Your task to perform on an android device: open app "LinkedIn" (install if not already installed) Image 0: 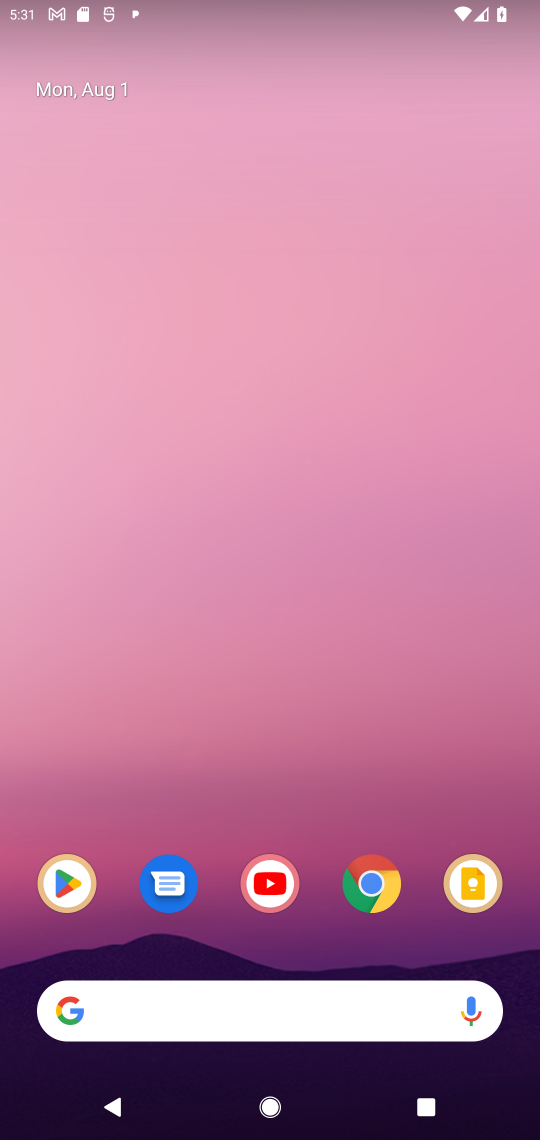
Step 0: drag from (187, 846) to (178, 172)
Your task to perform on an android device: open app "LinkedIn" (install if not already installed) Image 1: 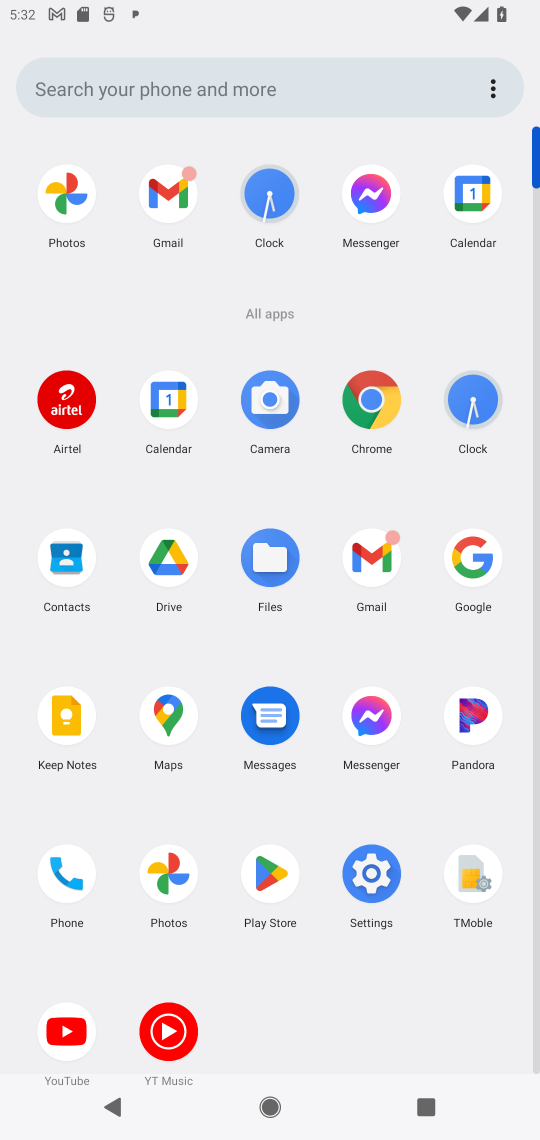
Step 1: click (256, 889)
Your task to perform on an android device: open app "LinkedIn" (install if not already installed) Image 2: 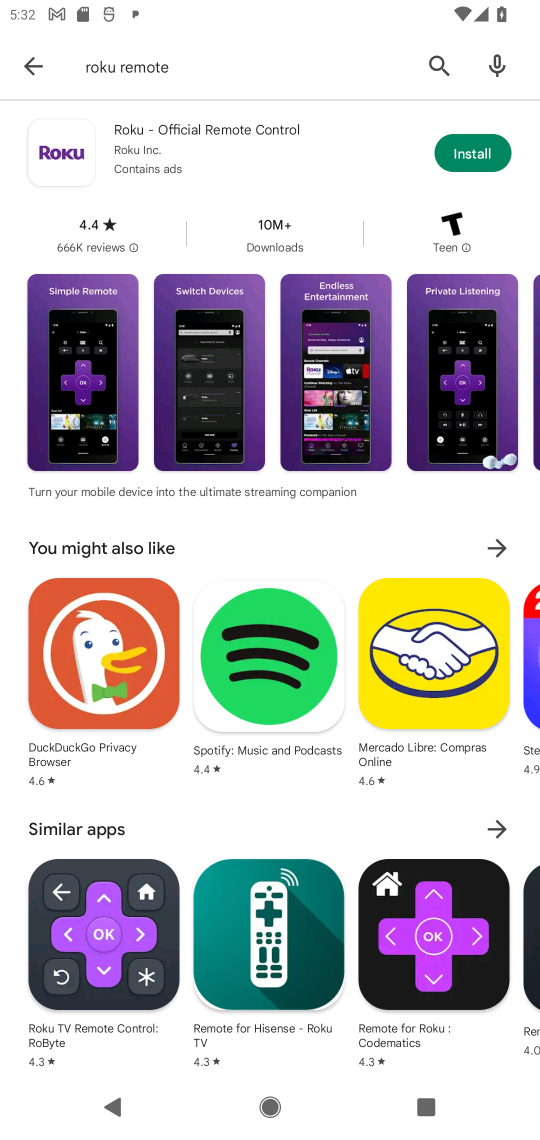
Step 2: click (28, 54)
Your task to perform on an android device: open app "LinkedIn" (install if not already installed) Image 3: 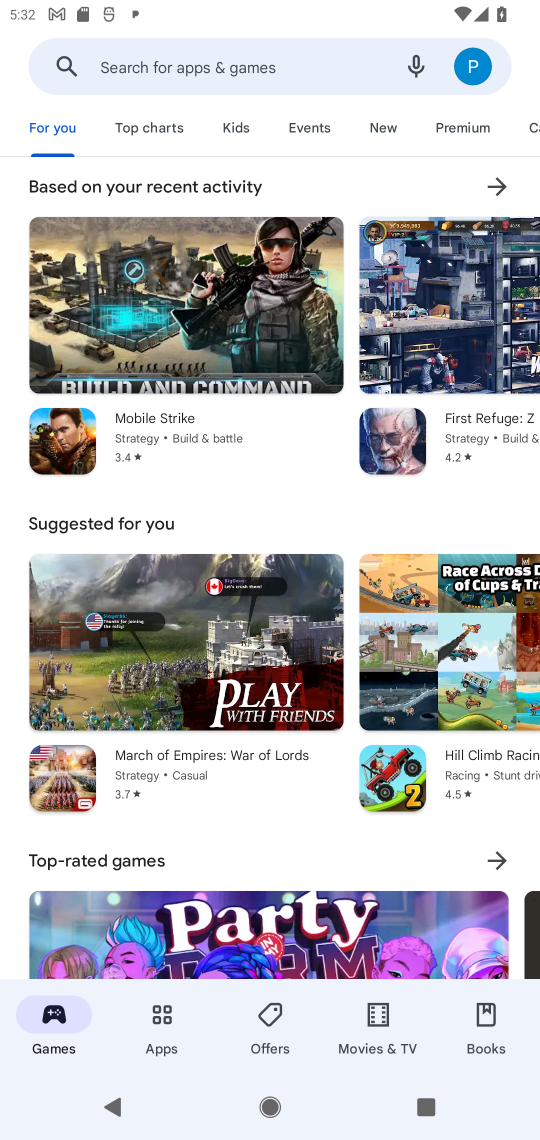
Step 3: click (258, 64)
Your task to perform on an android device: open app "LinkedIn" (install if not already installed) Image 4: 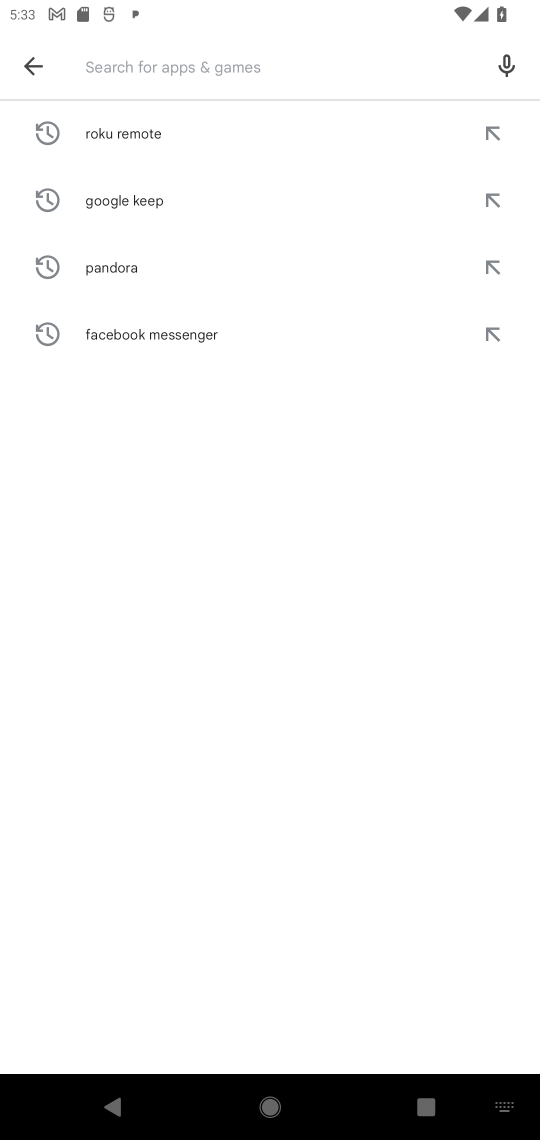
Step 4: type "LinkedIn"
Your task to perform on an android device: open app "LinkedIn" (install if not already installed) Image 5: 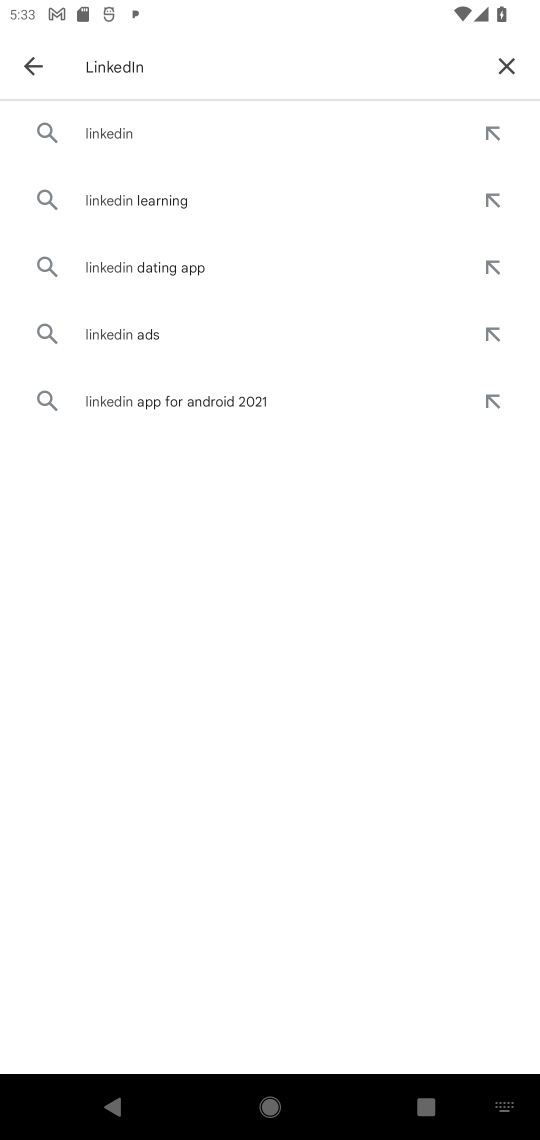
Step 5: click (120, 137)
Your task to perform on an android device: open app "LinkedIn" (install if not already installed) Image 6: 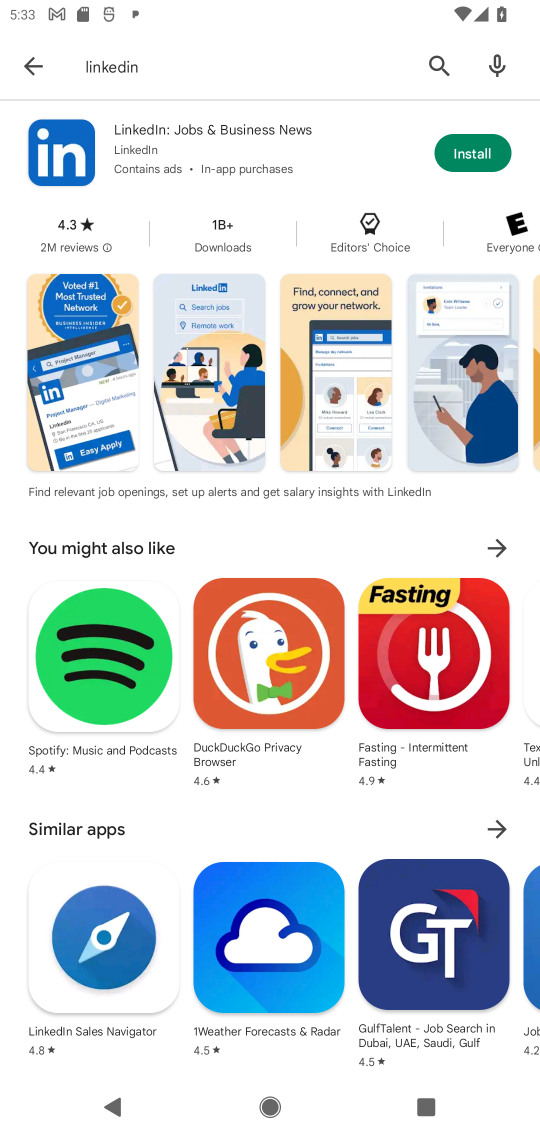
Step 6: click (477, 157)
Your task to perform on an android device: open app "LinkedIn" (install if not already installed) Image 7: 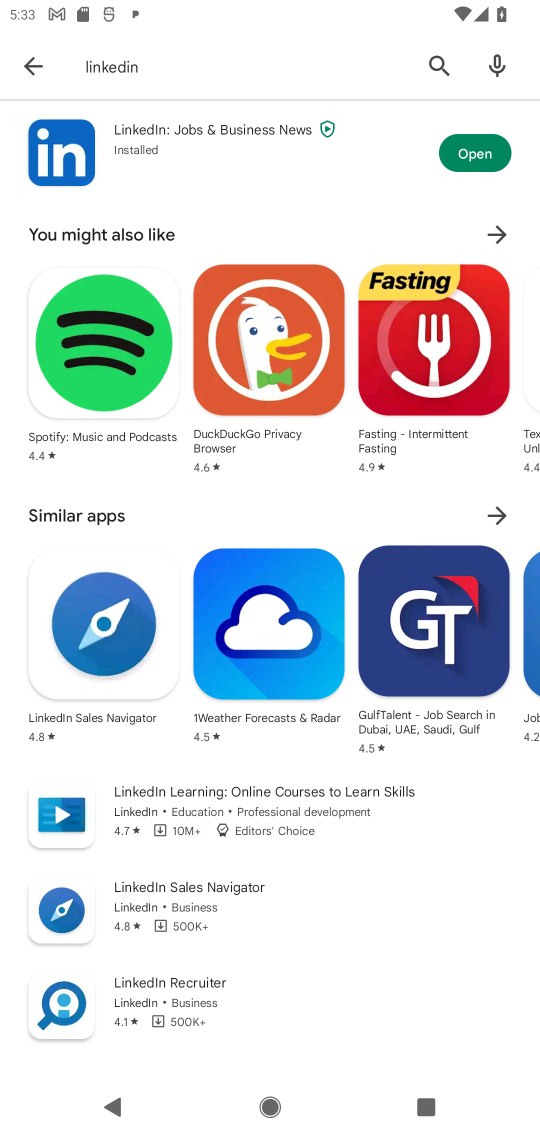
Step 7: click (461, 150)
Your task to perform on an android device: open app "LinkedIn" (install if not already installed) Image 8: 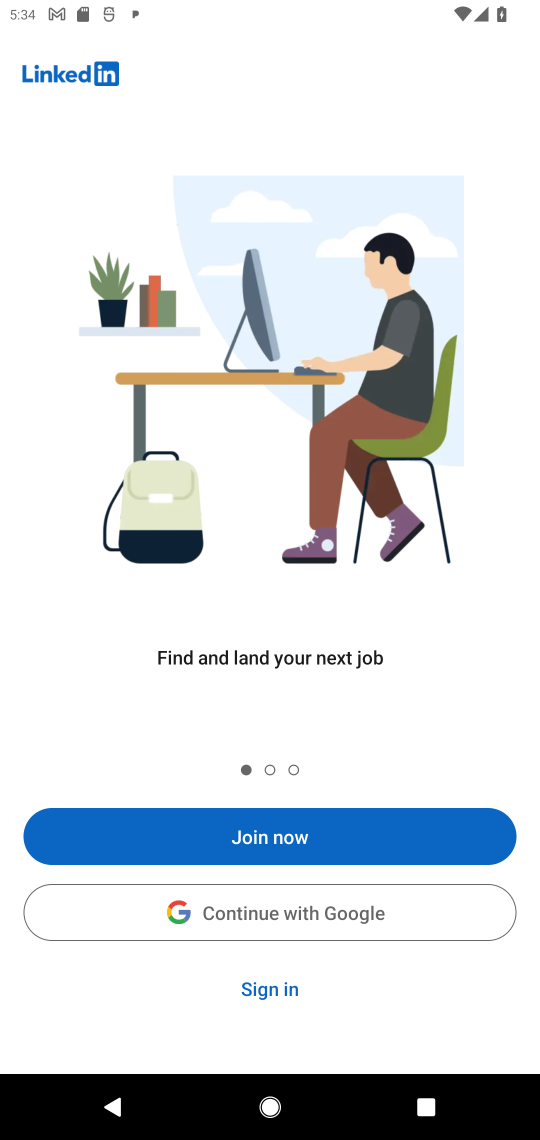
Step 8: task complete